Your task to perform on an android device: turn on bluetooth scan Image 0: 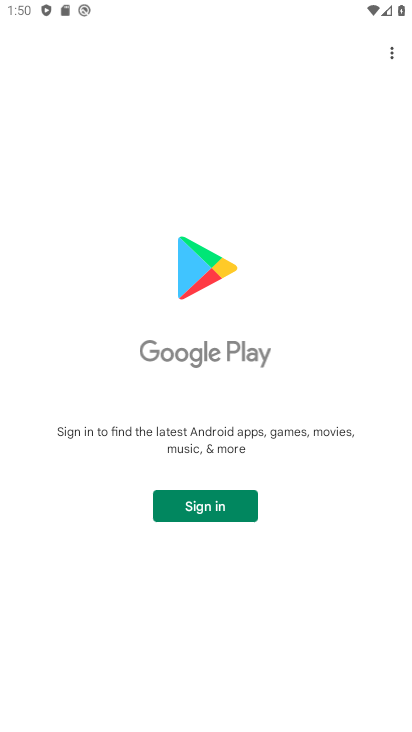
Step 0: press home button
Your task to perform on an android device: turn on bluetooth scan Image 1: 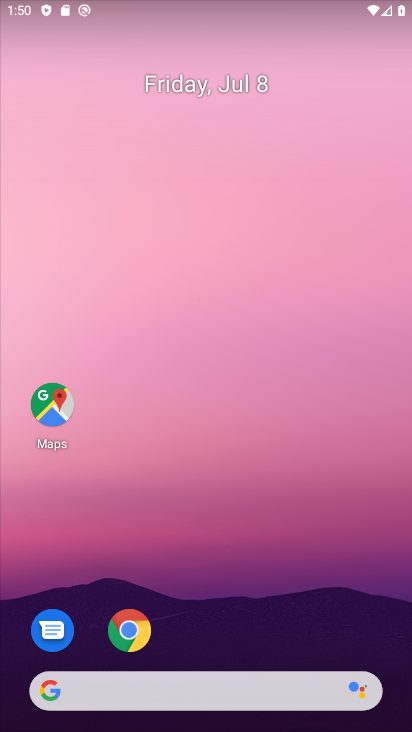
Step 1: drag from (281, 536) to (260, 157)
Your task to perform on an android device: turn on bluetooth scan Image 2: 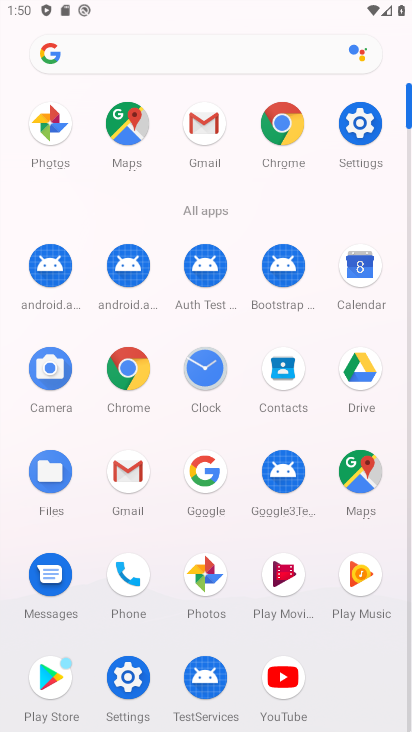
Step 2: click (370, 123)
Your task to perform on an android device: turn on bluetooth scan Image 3: 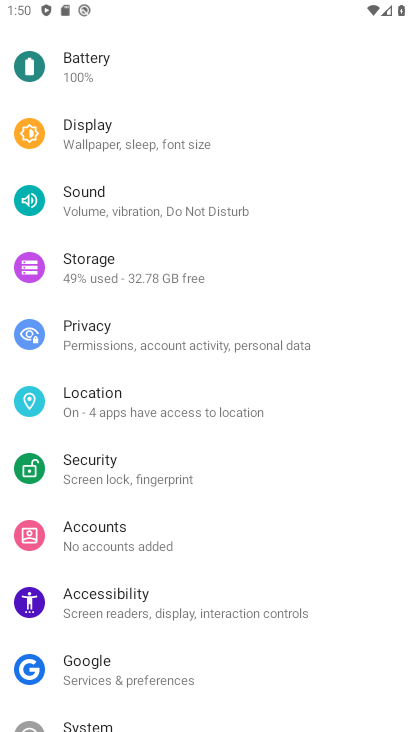
Step 3: drag from (207, 192) to (206, 131)
Your task to perform on an android device: turn on bluetooth scan Image 4: 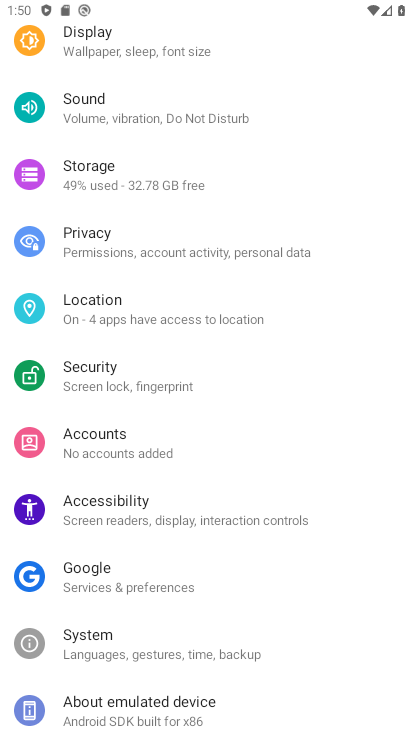
Step 4: drag from (206, 584) to (228, 286)
Your task to perform on an android device: turn on bluetooth scan Image 5: 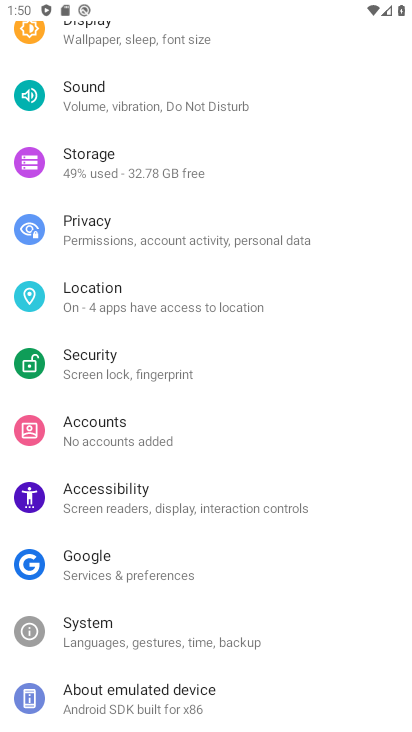
Step 5: click (139, 306)
Your task to perform on an android device: turn on bluetooth scan Image 6: 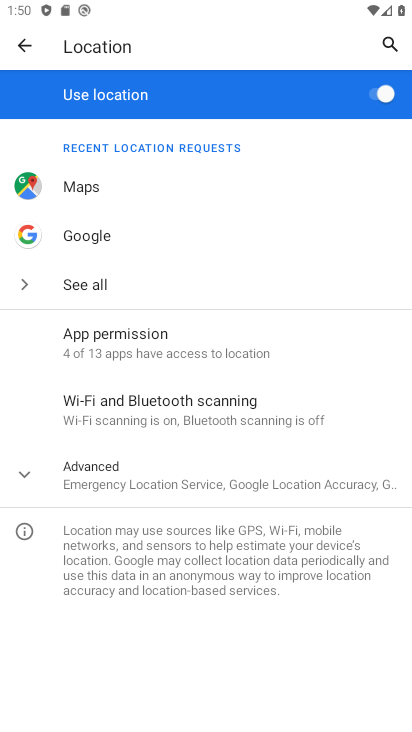
Step 6: click (105, 466)
Your task to perform on an android device: turn on bluetooth scan Image 7: 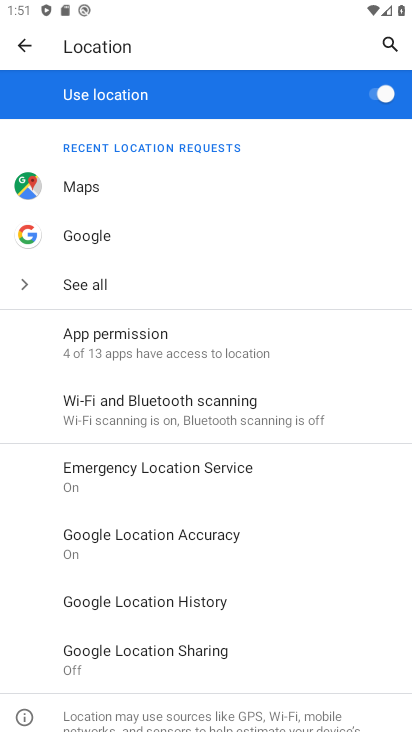
Step 7: click (172, 401)
Your task to perform on an android device: turn on bluetooth scan Image 8: 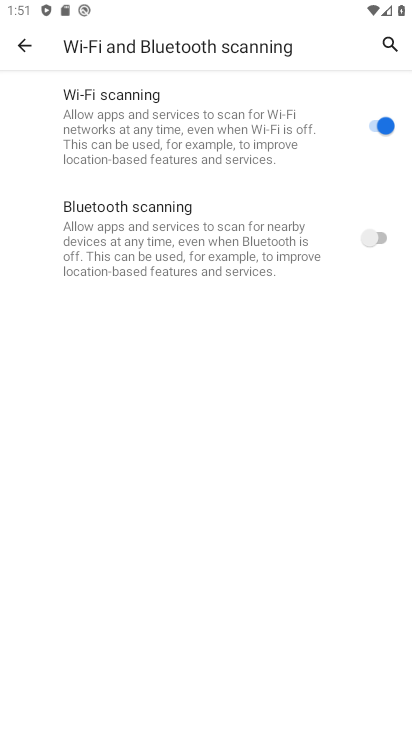
Step 8: click (354, 231)
Your task to perform on an android device: turn on bluetooth scan Image 9: 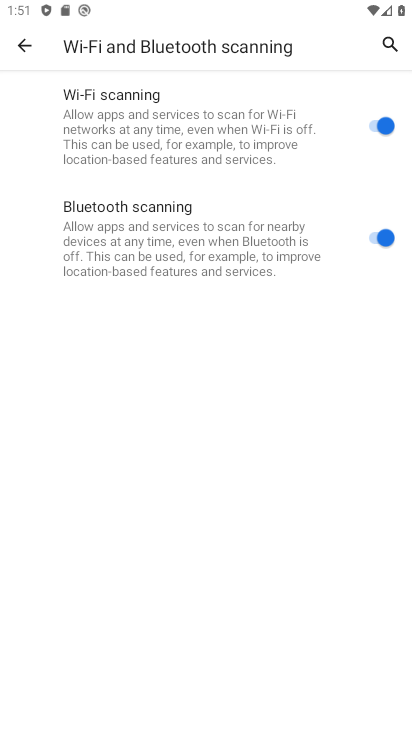
Step 9: task complete